Your task to perform on an android device: What's the weather today? Image 0: 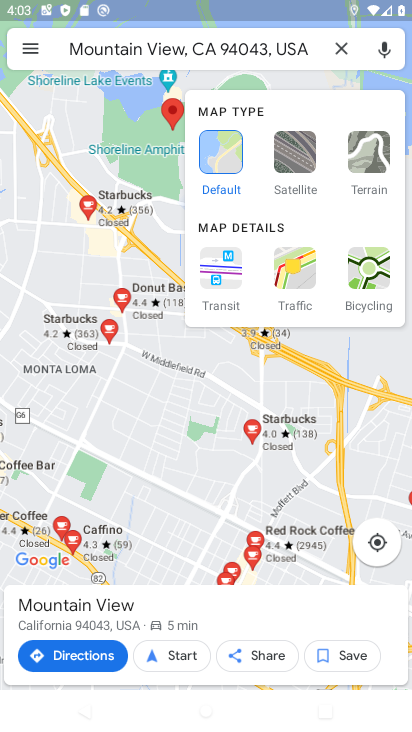
Step 0: press back button
Your task to perform on an android device: What's the weather today? Image 1: 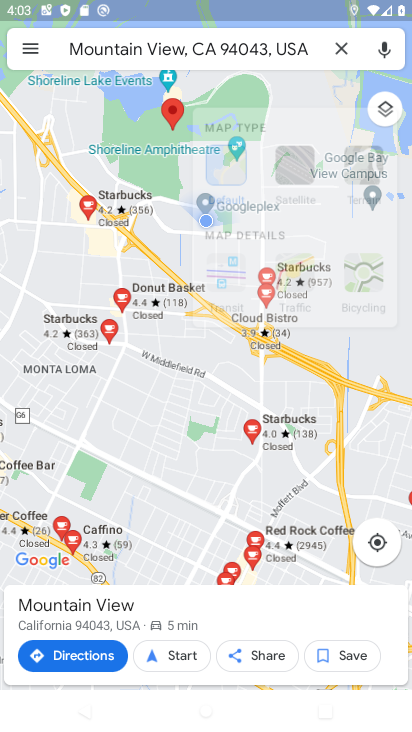
Step 1: press back button
Your task to perform on an android device: What's the weather today? Image 2: 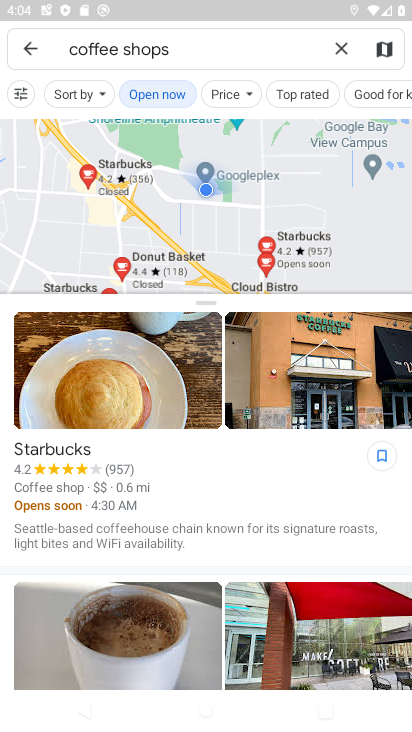
Step 2: click (32, 41)
Your task to perform on an android device: What's the weather today? Image 3: 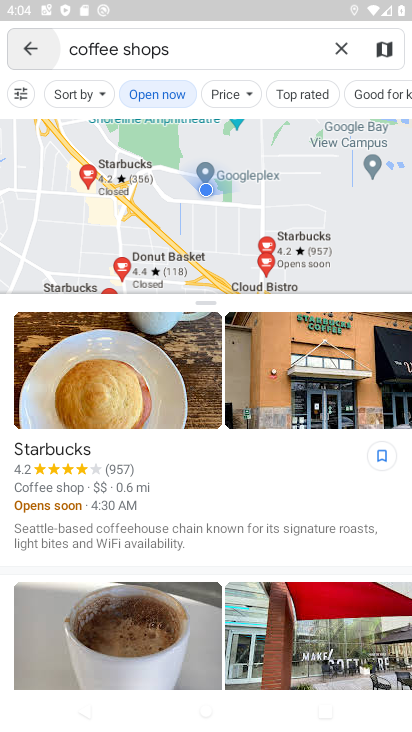
Step 3: click (34, 43)
Your task to perform on an android device: What's the weather today? Image 4: 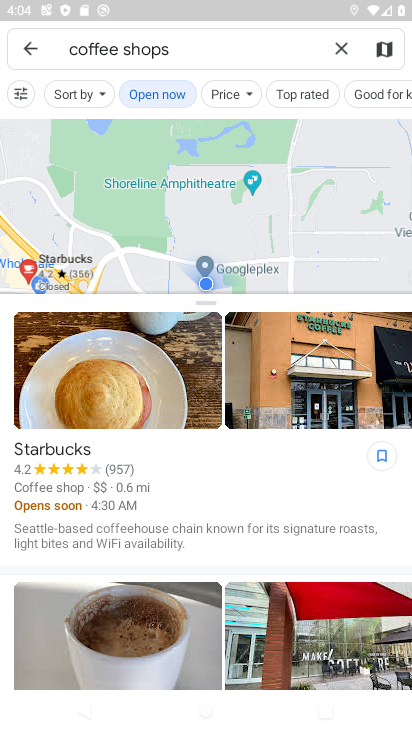
Step 4: click (35, 44)
Your task to perform on an android device: What's the weather today? Image 5: 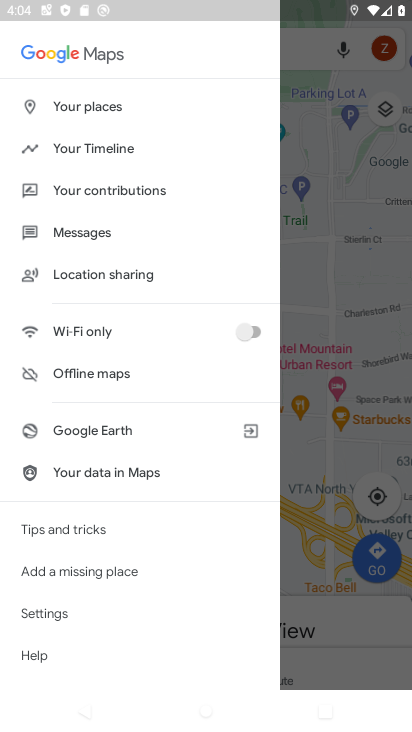
Step 5: click (393, 239)
Your task to perform on an android device: What's the weather today? Image 6: 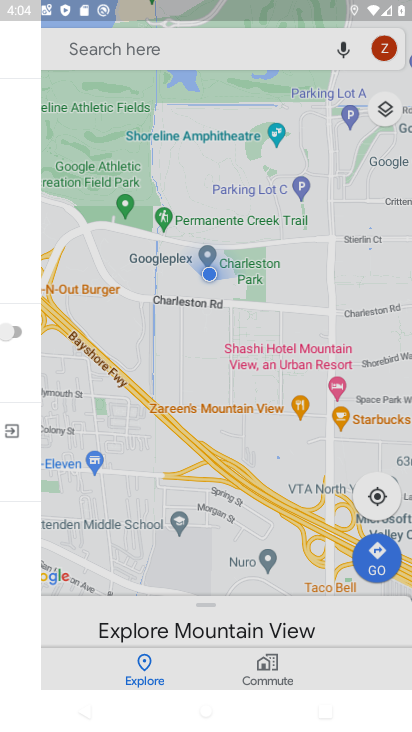
Step 6: click (330, 257)
Your task to perform on an android device: What's the weather today? Image 7: 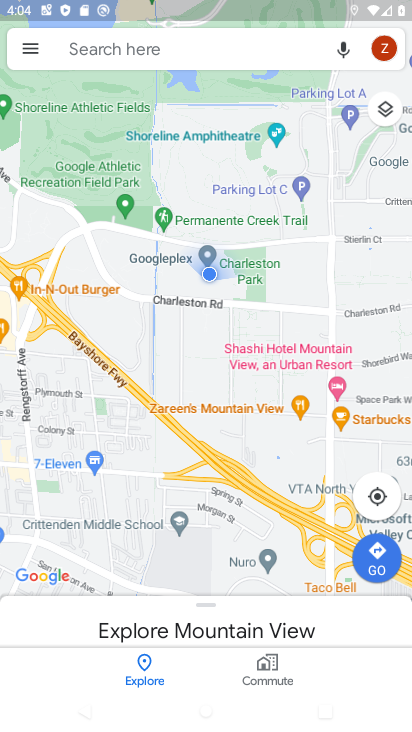
Step 7: press back button
Your task to perform on an android device: What's the weather today? Image 8: 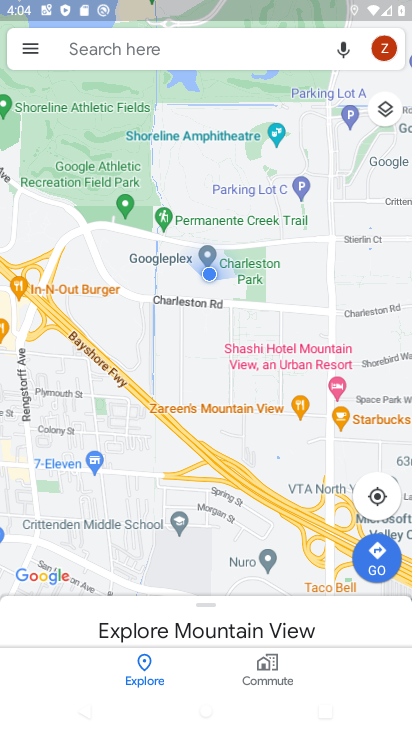
Step 8: press back button
Your task to perform on an android device: What's the weather today? Image 9: 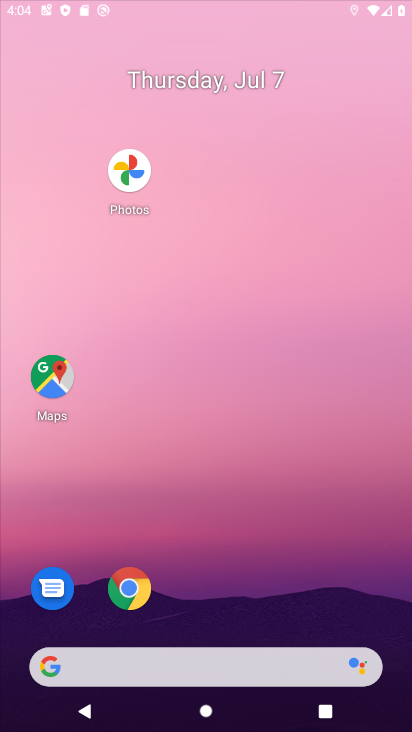
Step 9: press back button
Your task to perform on an android device: What's the weather today? Image 10: 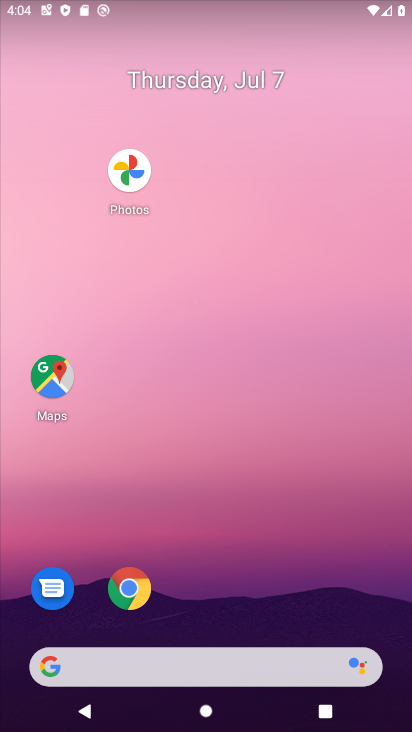
Step 10: drag from (10, 253) to (387, 225)
Your task to perform on an android device: What's the weather today? Image 11: 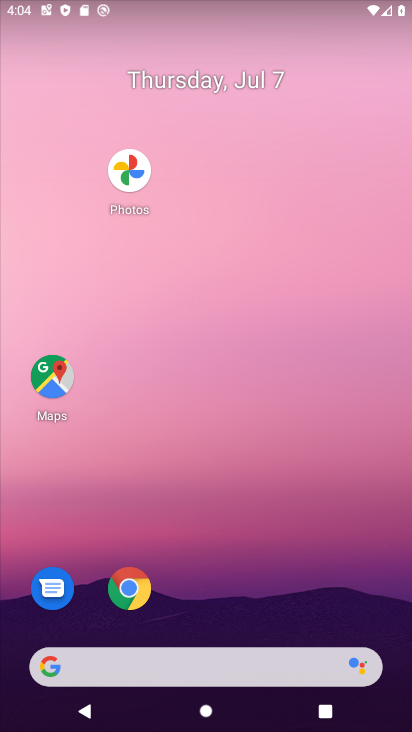
Step 11: drag from (52, 225) to (371, 402)
Your task to perform on an android device: What's the weather today? Image 12: 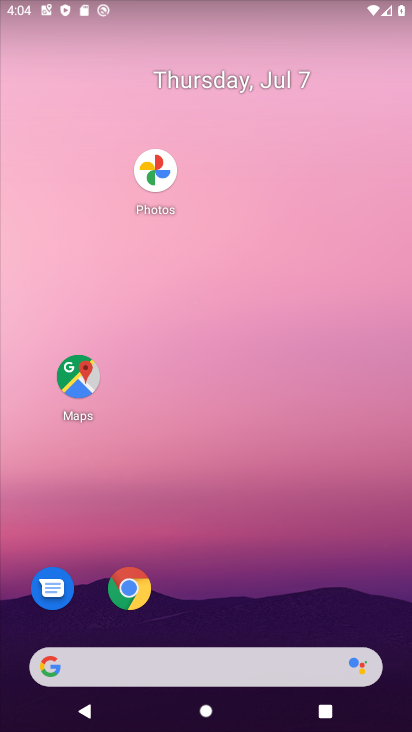
Step 12: drag from (83, 233) to (409, 473)
Your task to perform on an android device: What's the weather today? Image 13: 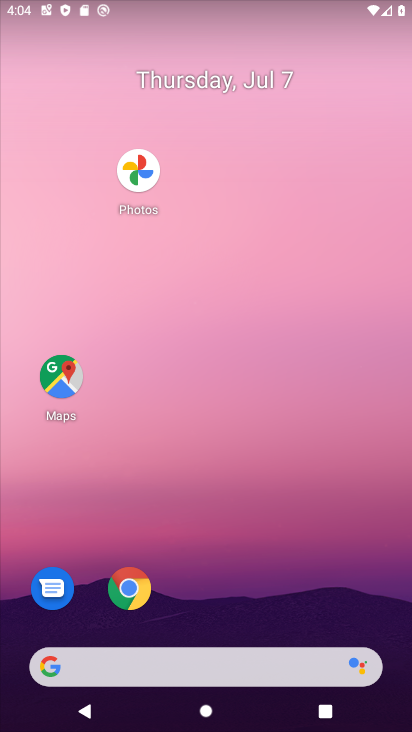
Step 13: drag from (25, 215) to (373, 509)
Your task to perform on an android device: What's the weather today? Image 14: 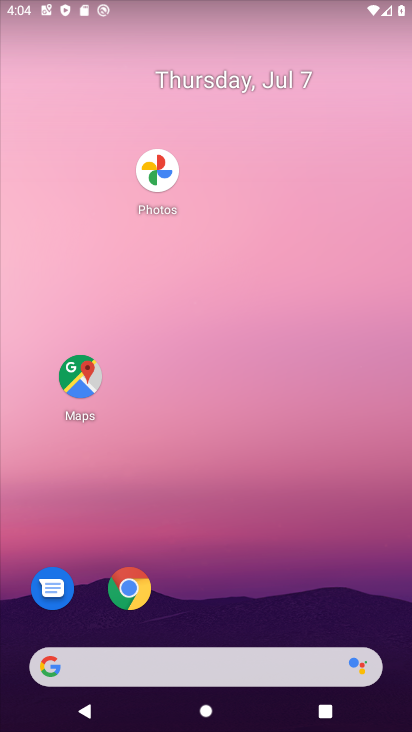
Step 14: drag from (66, 239) to (404, 461)
Your task to perform on an android device: What's the weather today? Image 15: 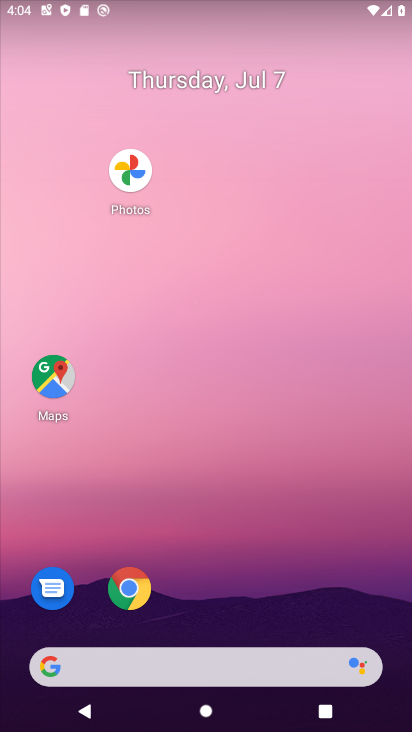
Step 15: drag from (239, 363) to (395, 511)
Your task to perform on an android device: What's the weather today? Image 16: 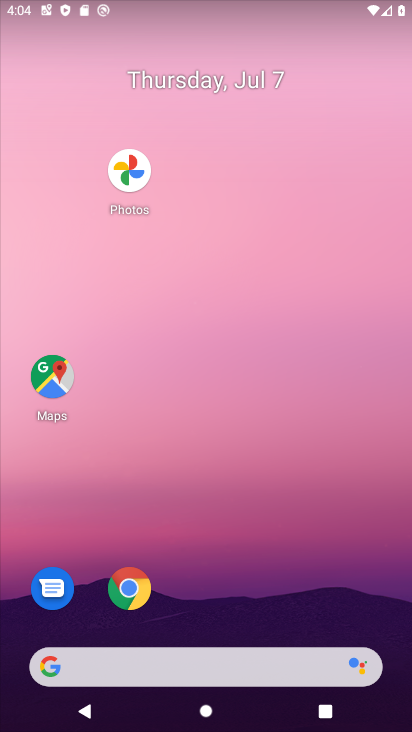
Step 16: drag from (215, 366) to (368, 434)
Your task to perform on an android device: What's the weather today? Image 17: 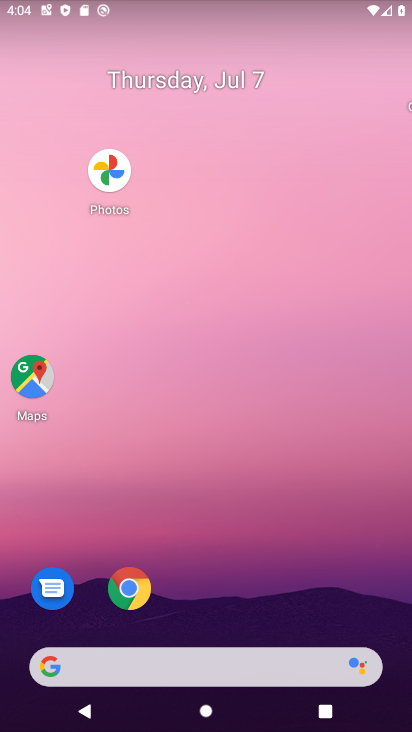
Step 17: drag from (171, 495) to (213, 24)
Your task to perform on an android device: What's the weather today? Image 18: 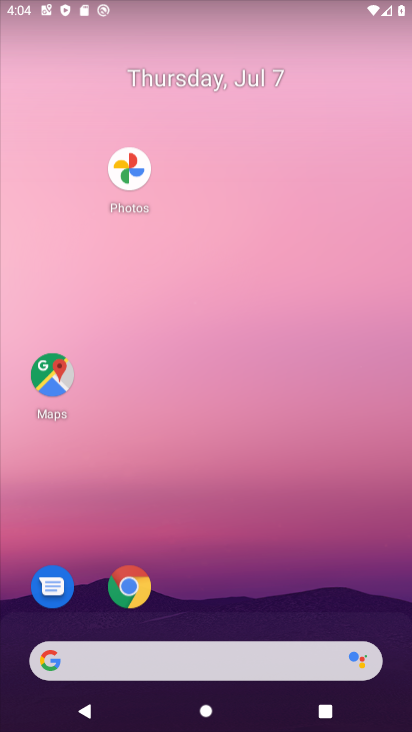
Step 18: drag from (271, 543) to (279, 84)
Your task to perform on an android device: What's the weather today? Image 19: 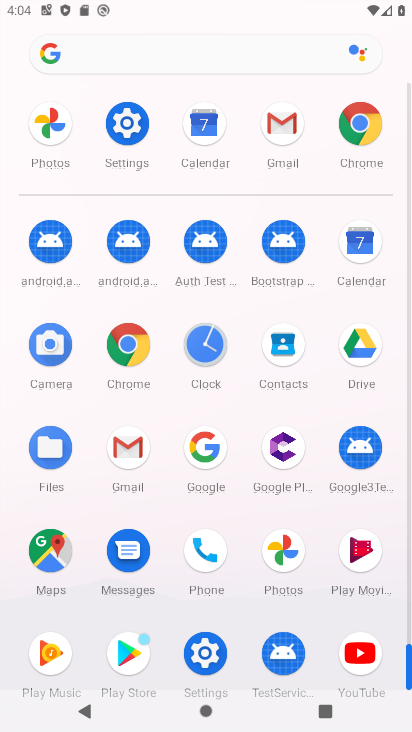
Step 19: drag from (124, 617) to (148, 191)
Your task to perform on an android device: What's the weather today? Image 20: 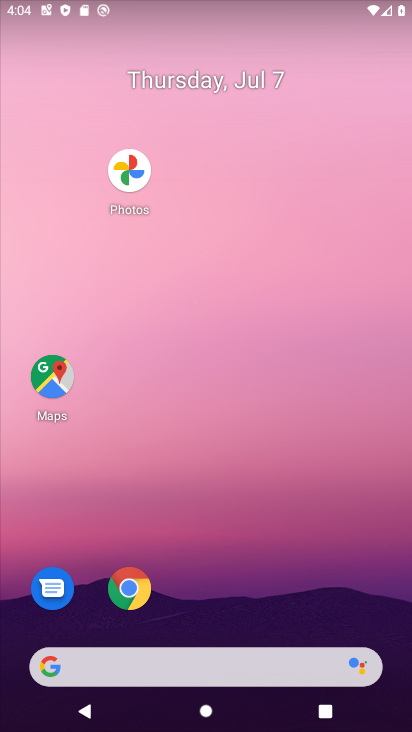
Step 20: drag from (276, 558) to (150, 45)
Your task to perform on an android device: What's the weather today? Image 21: 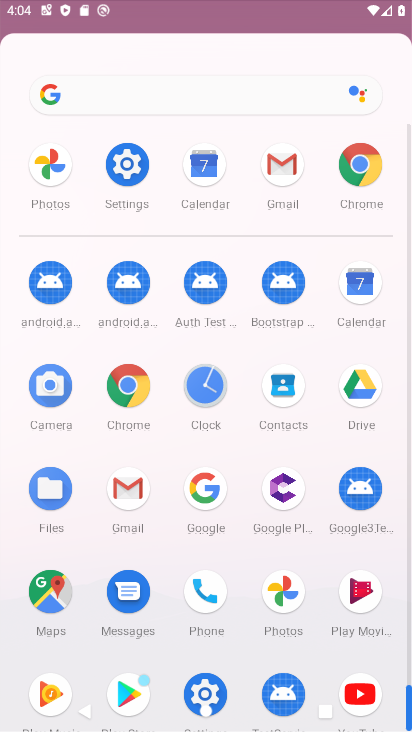
Step 21: drag from (196, 425) to (148, 145)
Your task to perform on an android device: What's the weather today? Image 22: 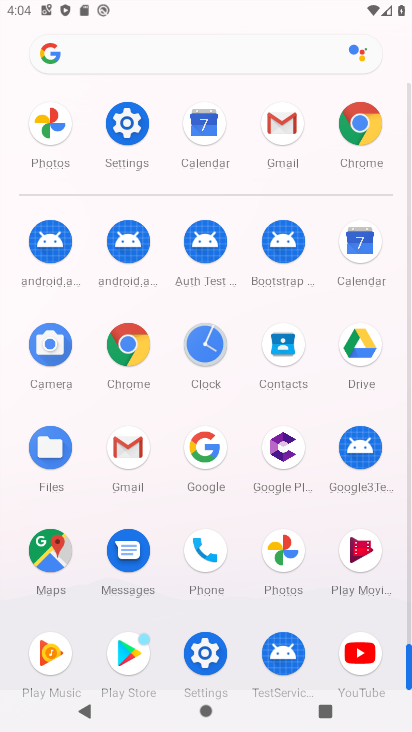
Step 22: click (140, 346)
Your task to perform on an android device: What's the weather today? Image 23: 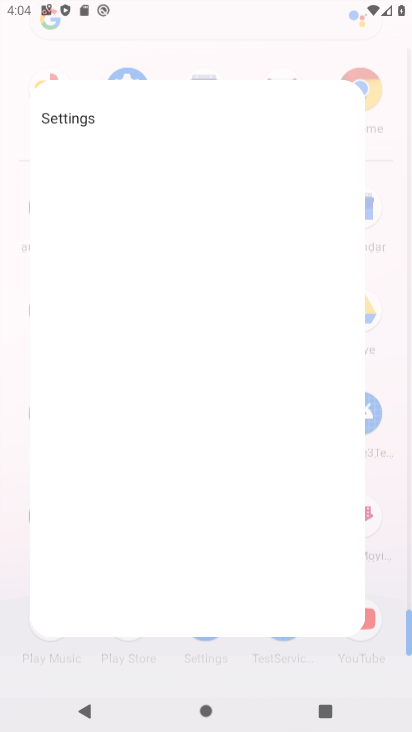
Step 23: click (140, 346)
Your task to perform on an android device: What's the weather today? Image 24: 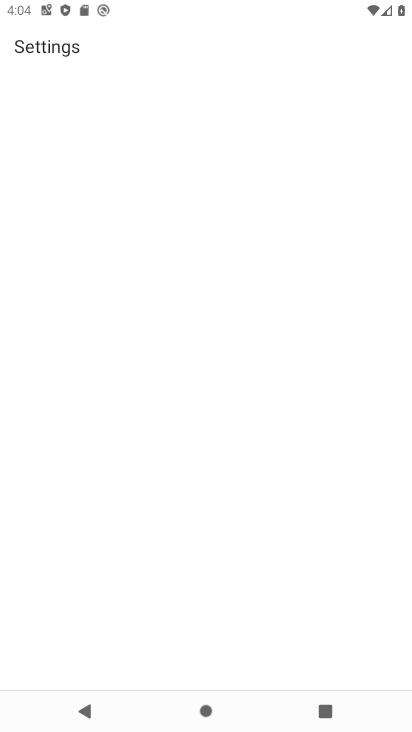
Step 24: click (139, 345)
Your task to perform on an android device: What's the weather today? Image 25: 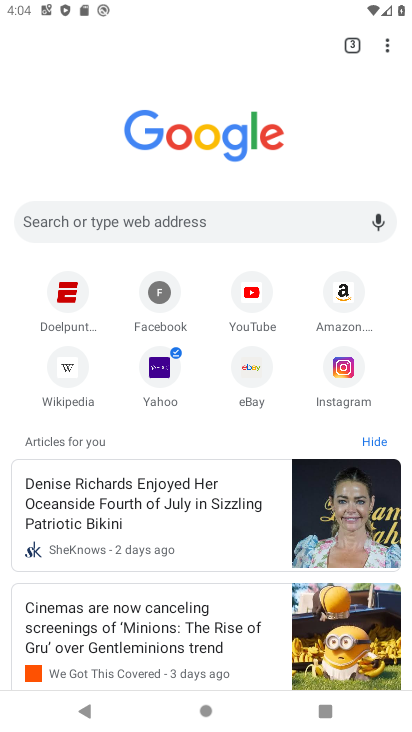
Step 25: click (149, 218)
Your task to perform on an android device: What's the weather today? Image 26: 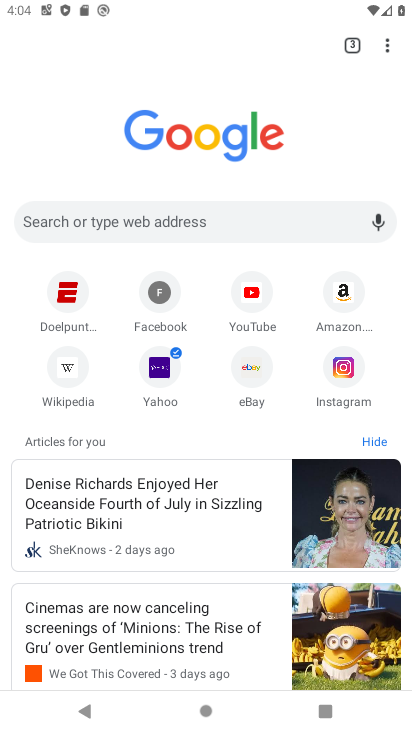
Step 26: click (149, 218)
Your task to perform on an android device: What's the weather today? Image 27: 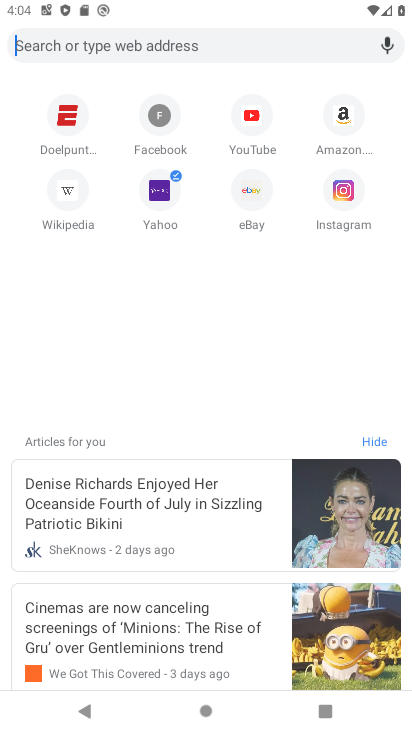
Step 27: click (150, 220)
Your task to perform on an android device: What's the weather today? Image 28: 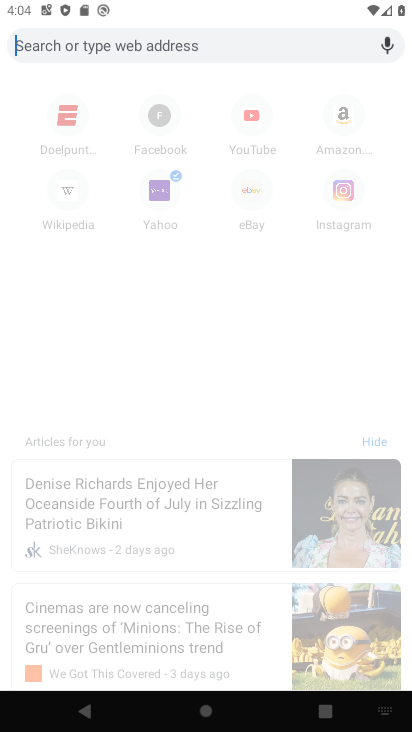
Step 28: click (151, 221)
Your task to perform on an android device: What's the weather today? Image 29: 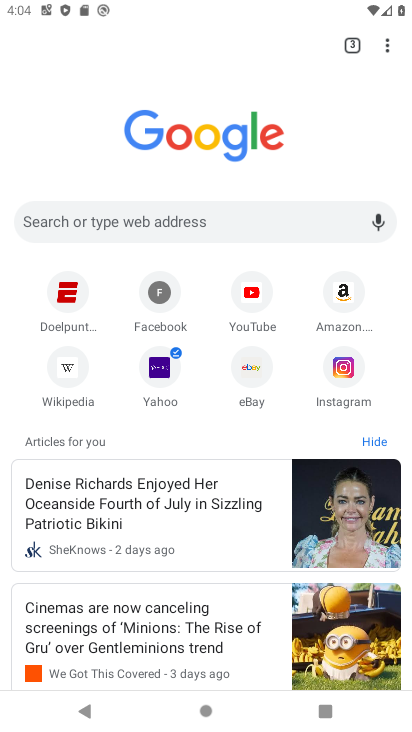
Step 29: click (198, 233)
Your task to perform on an android device: What's the weather today? Image 30: 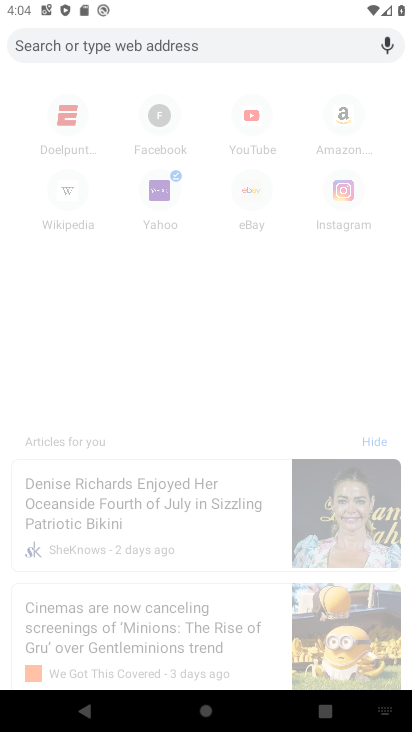
Step 30: type "whats's the weather today"
Your task to perform on an android device: What's the weather today? Image 31: 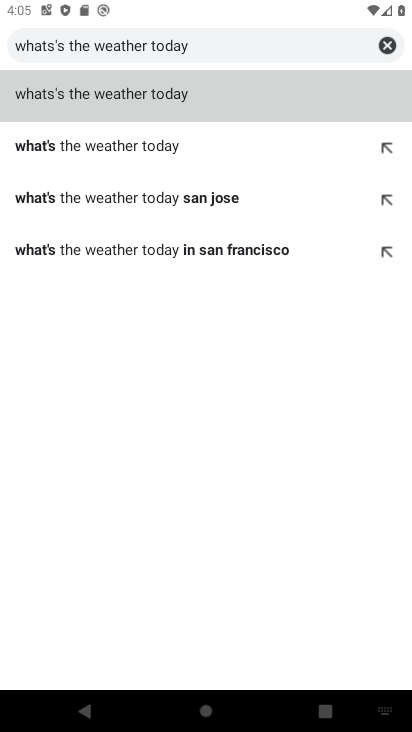
Step 31: click (194, 89)
Your task to perform on an android device: What's the weather today? Image 32: 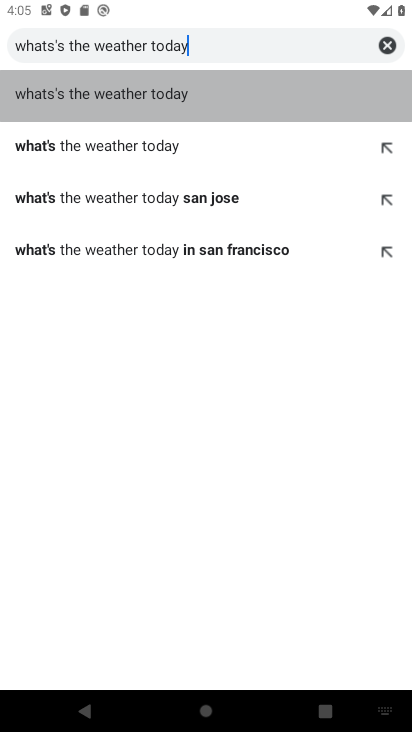
Step 32: click (194, 90)
Your task to perform on an android device: What's the weather today? Image 33: 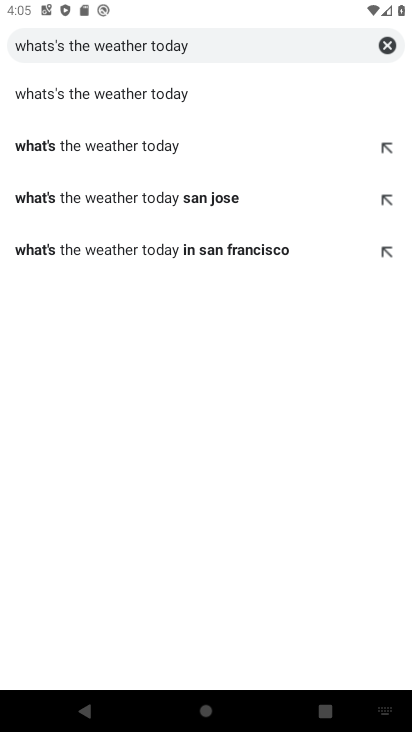
Step 33: click (194, 90)
Your task to perform on an android device: What's the weather today? Image 34: 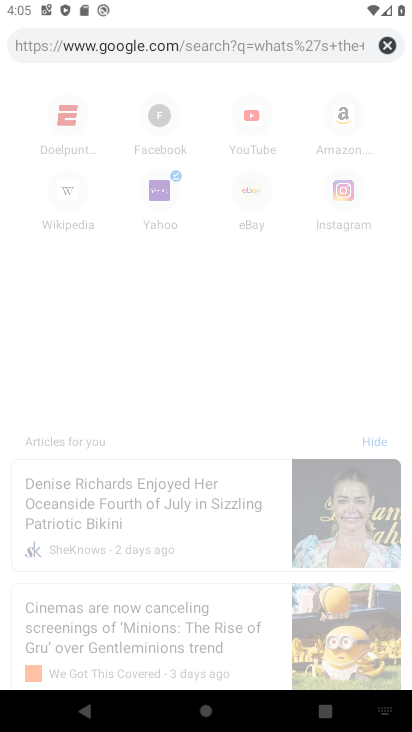
Step 34: click (194, 90)
Your task to perform on an android device: What's the weather today? Image 35: 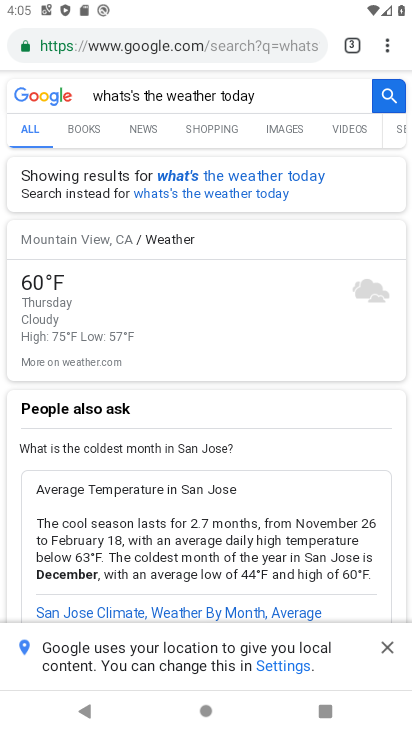
Step 35: task complete